Your task to perform on an android device: open app "Messages" (install if not already installed) Image 0: 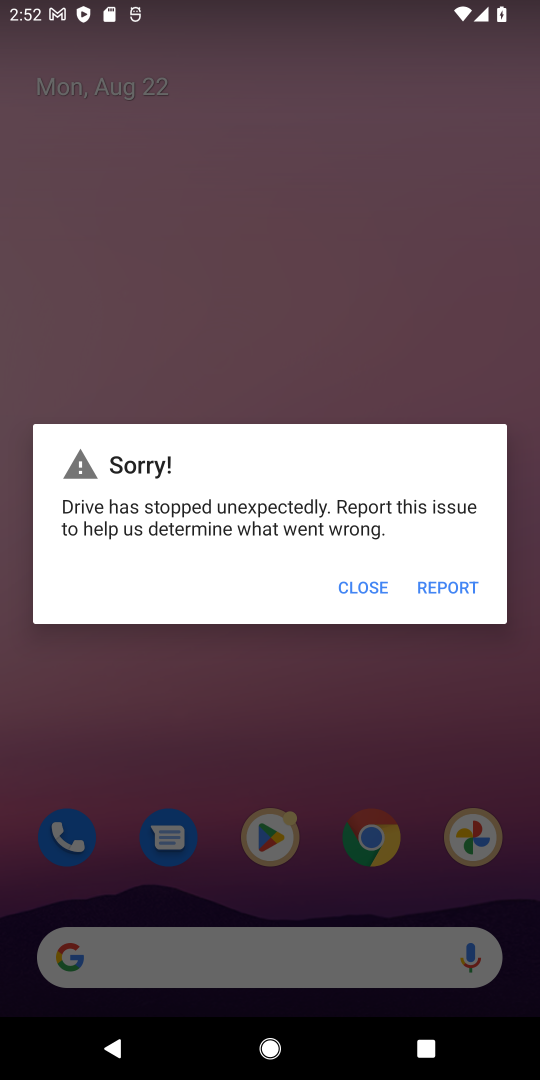
Step 0: press home button
Your task to perform on an android device: open app "Messages" (install if not already installed) Image 1: 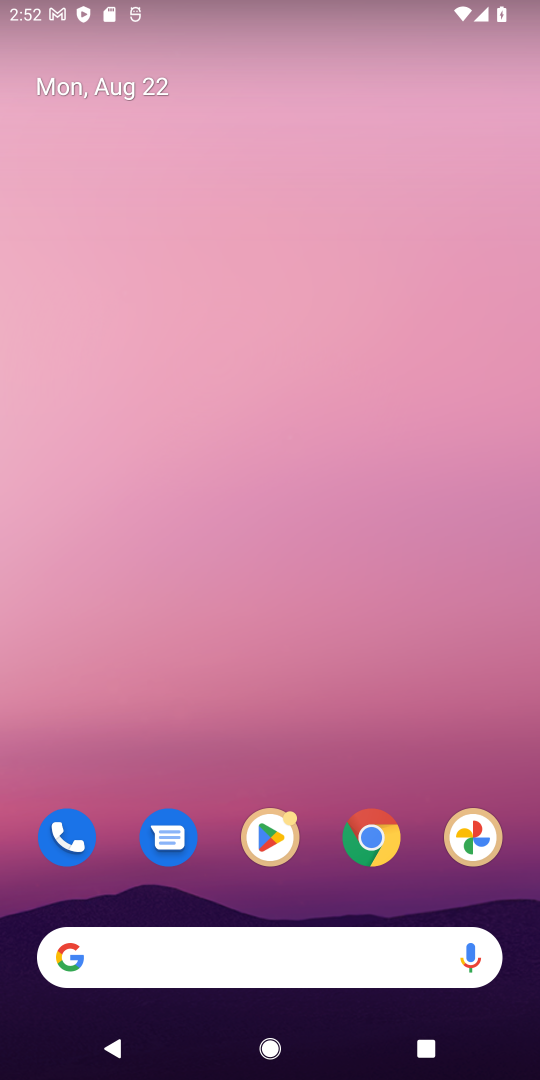
Step 1: drag from (381, 725) to (252, 115)
Your task to perform on an android device: open app "Messages" (install if not already installed) Image 2: 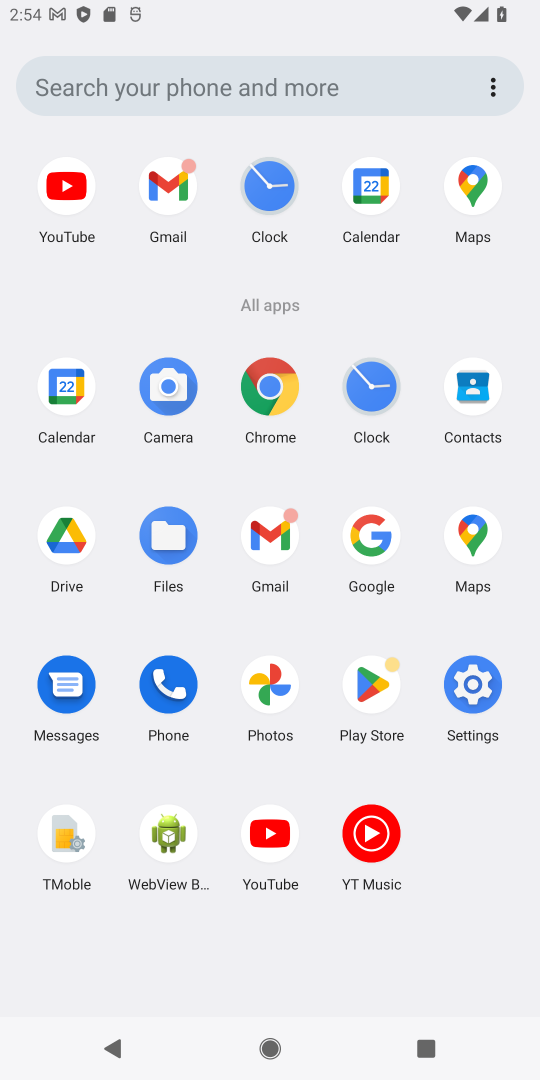
Step 2: click (369, 690)
Your task to perform on an android device: open app "Messages" (install if not already installed) Image 3: 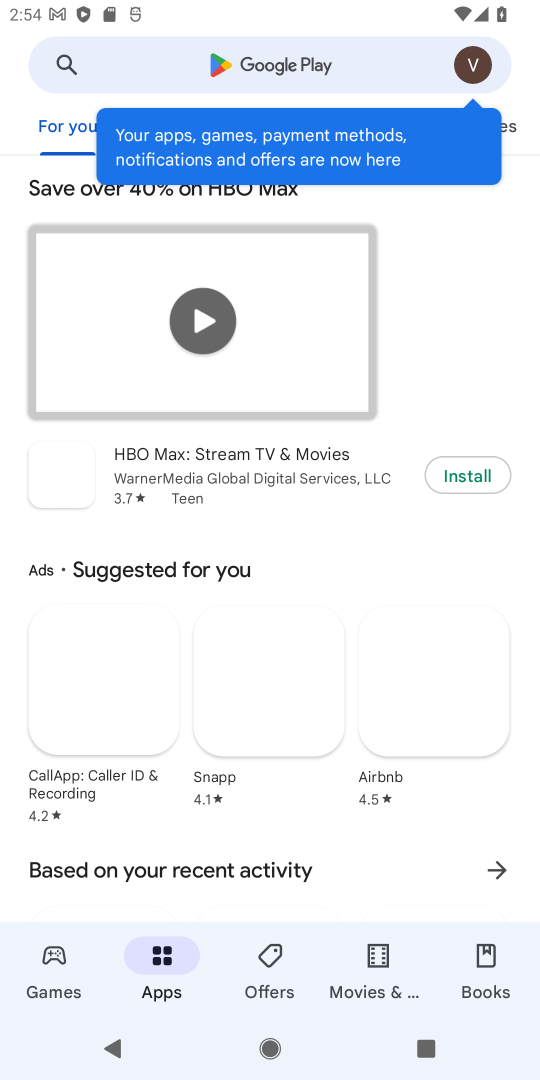
Step 3: click (203, 44)
Your task to perform on an android device: open app "Messages" (install if not already installed) Image 4: 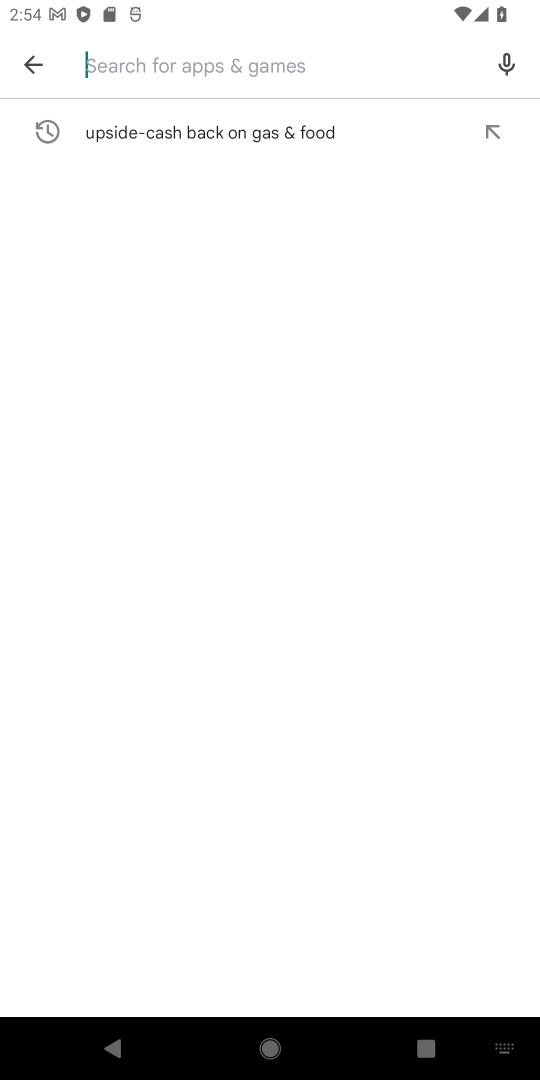
Step 4: type "Messages"
Your task to perform on an android device: open app "Messages" (install if not already installed) Image 5: 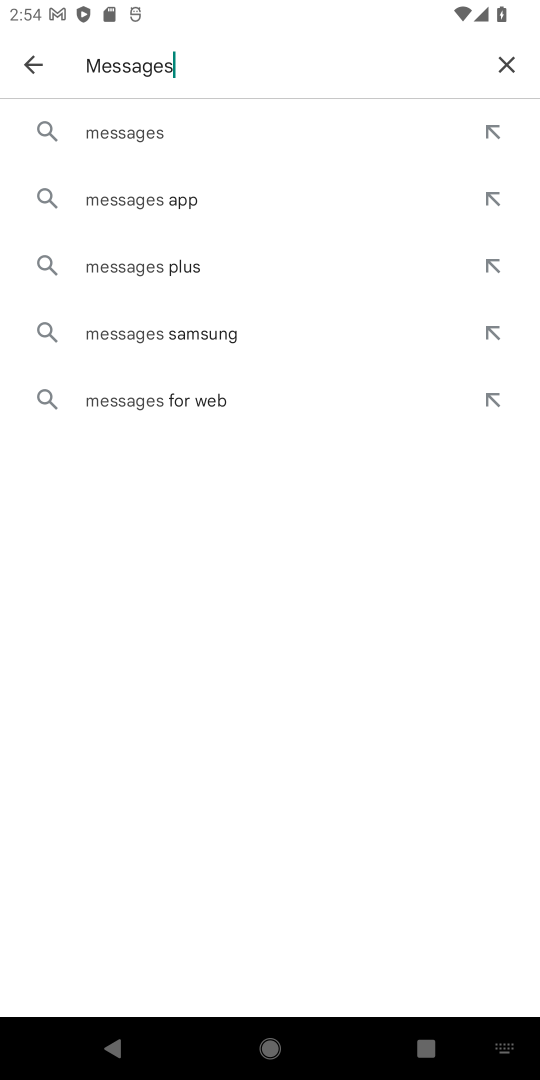
Step 5: click (168, 143)
Your task to perform on an android device: open app "Messages" (install if not already installed) Image 6: 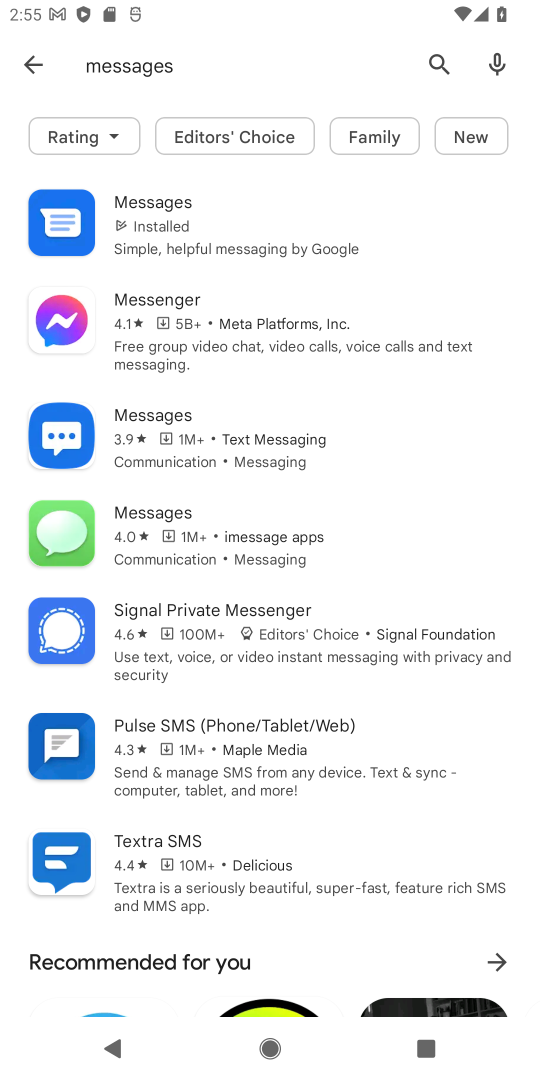
Step 6: click (207, 208)
Your task to perform on an android device: open app "Messages" (install if not already installed) Image 7: 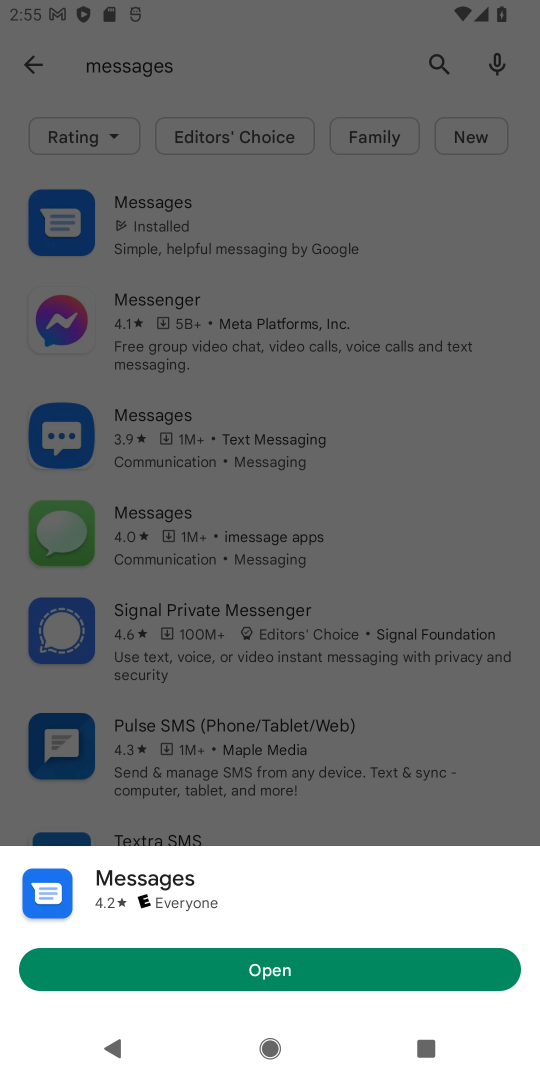
Step 7: click (233, 969)
Your task to perform on an android device: open app "Messages" (install if not already installed) Image 8: 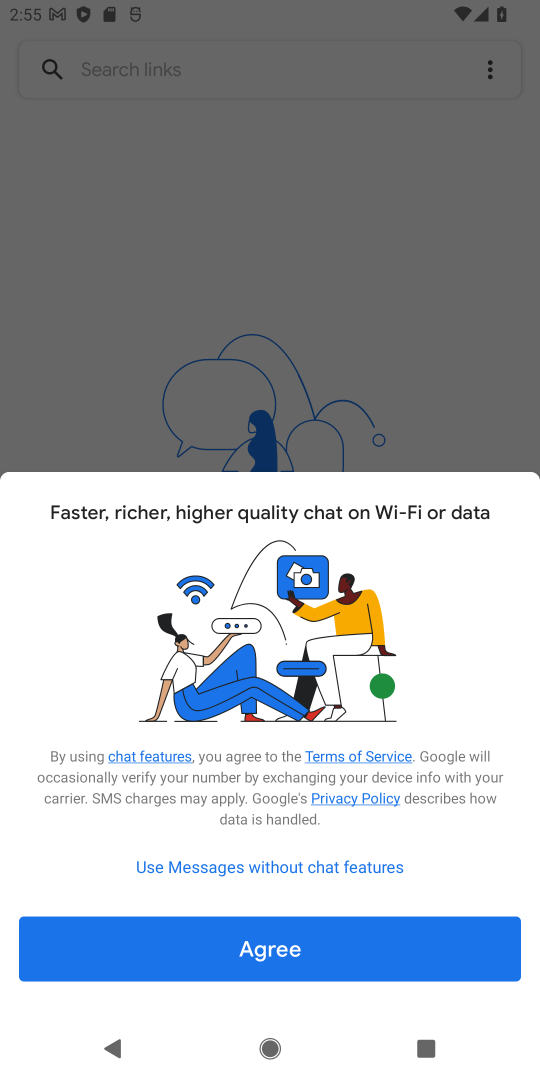
Step 8: task complete